Your task to perform on an android device: turn on priority inbox in the gmail app Image 0: 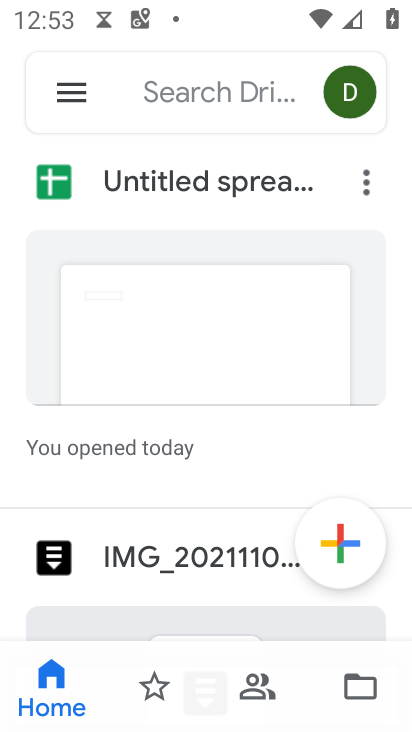
Step 0: press home button
Your task to perform on an android device: turn on priority inbox in the gmail app Image 1: 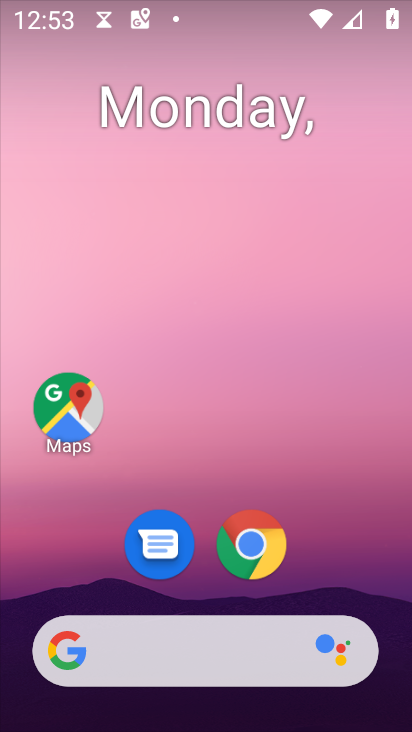
Step 1: drag from (348, 579) to (322, 243)
Your task to perform on an android device: turn on priority inbox in the gmail app Image 2: 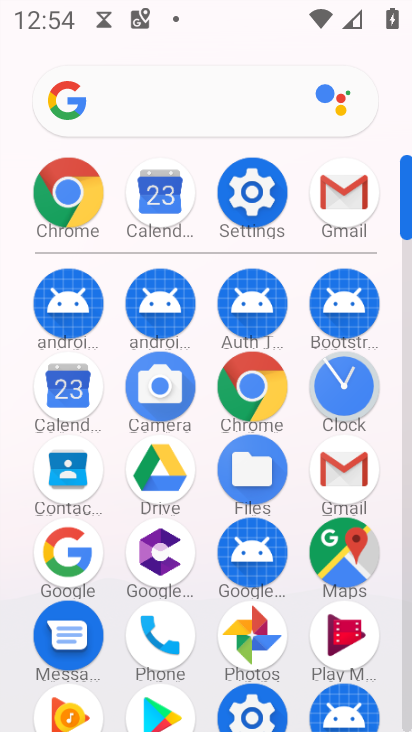
Step 2: click (328, 457)
Your task to perform on an android device: turn on priority inbox in the gmail app Image 3: 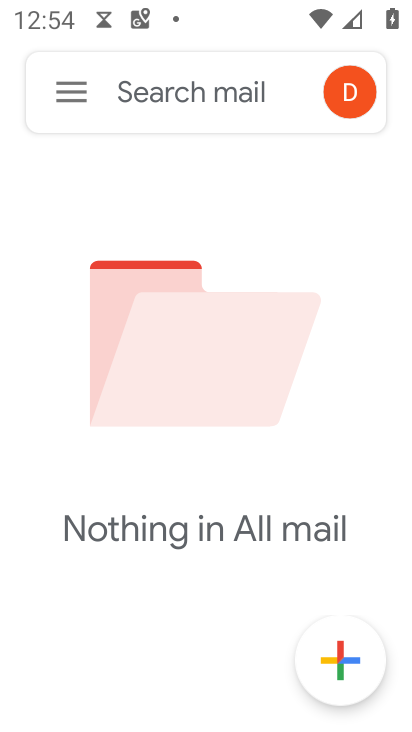
Step 3: click (106, 74)
Your task to perform on an android device: turn on priority inbox in the gmail app Image 4: 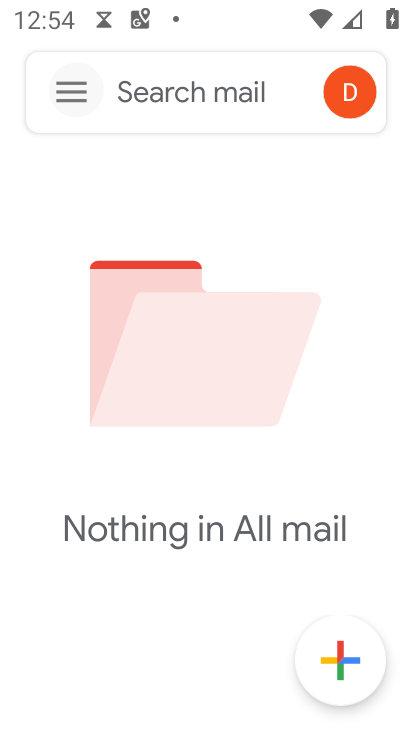
Step 4: click (70, 76)
Your task to perform on an android device: turn on priority inbox in the gmail app Image 5: 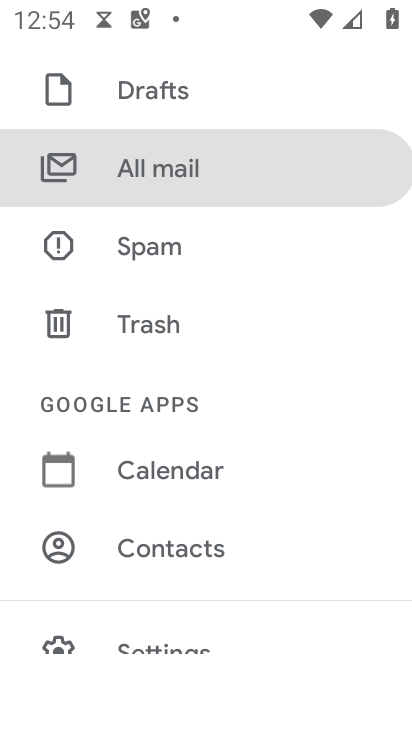
Step 5: drag from (199, 606) to (218, 202)
Your task to perform on an android device: turn on priority inbox in the gmail app Image 6: 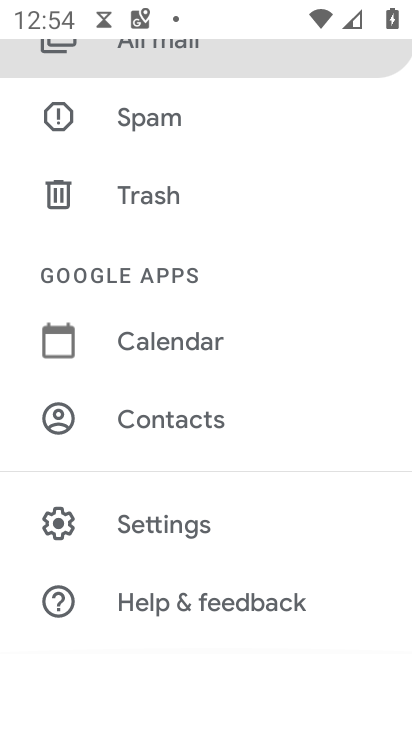
Step 6: click (191, 528)
Your task to perform on an android device: turn on priority inbox in the gmail app Image 7: 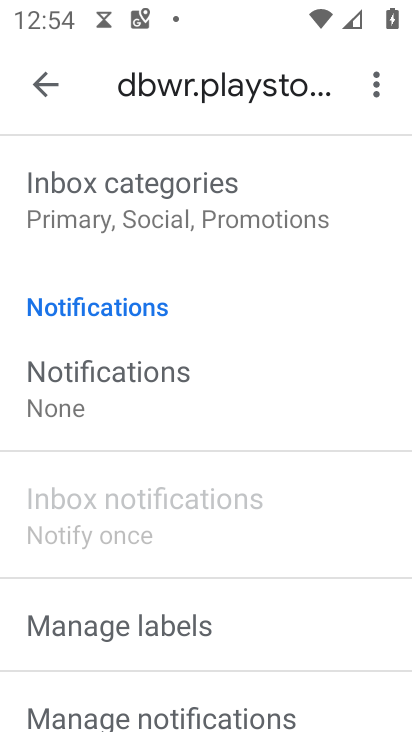
Step 7: drag from (176, 220) to (185, 483)
Your task to perform on an android device: turn on priority inbox in the gmail app Image 8: 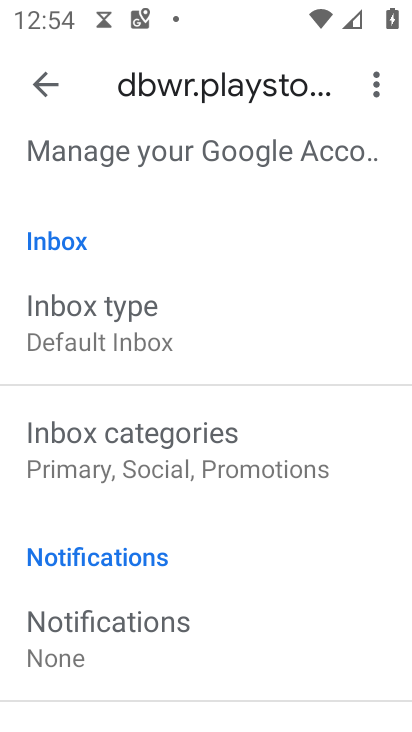
Step 8: click (125, 338)
Your task to perform on an android device: turn on priority inbox in the gmail app Image 9: 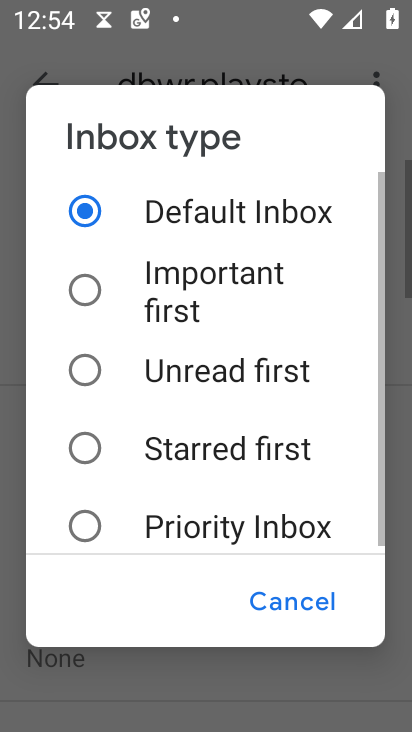
Step 9: click (154, 511)
Your task to perform on an android device: turn on priority inbox in the gmail app Image 10: 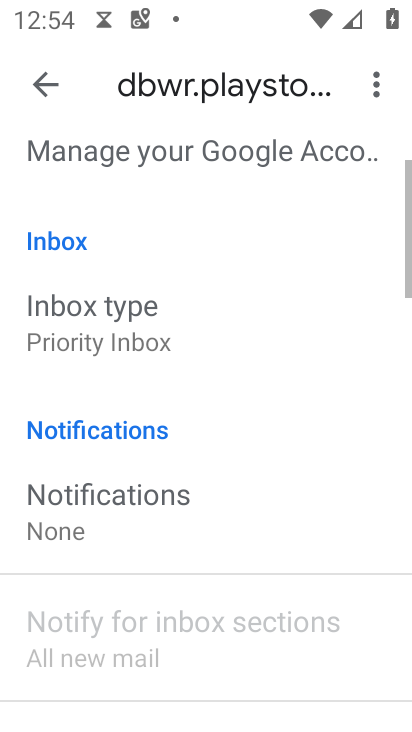
Step 10: task complete